Your task to perform on an android device: Open calendar and show me the fourth week of next month Image 0: 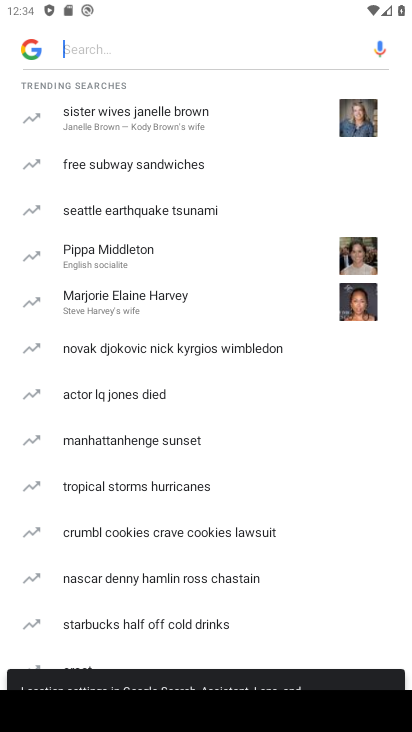
Step 0: press home button
Your task to perform on an android device: Open calendar and show me the fourth week of next month Image 1: 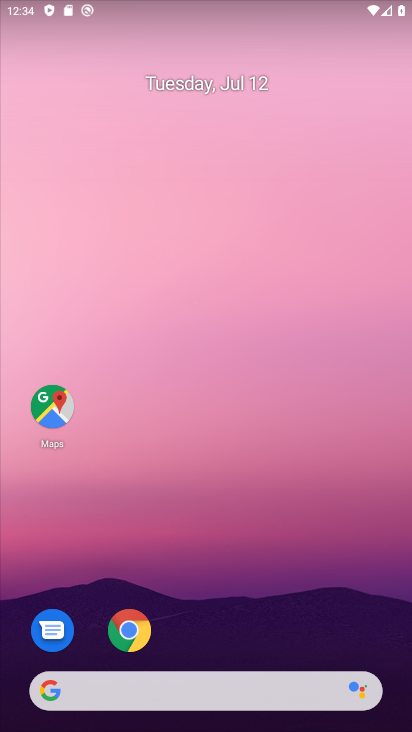
Step 1: drag from (371, 639) to (291, 220)
Your task to perform on an android device: Open calendar and show me the fourth week of next month Image 2: 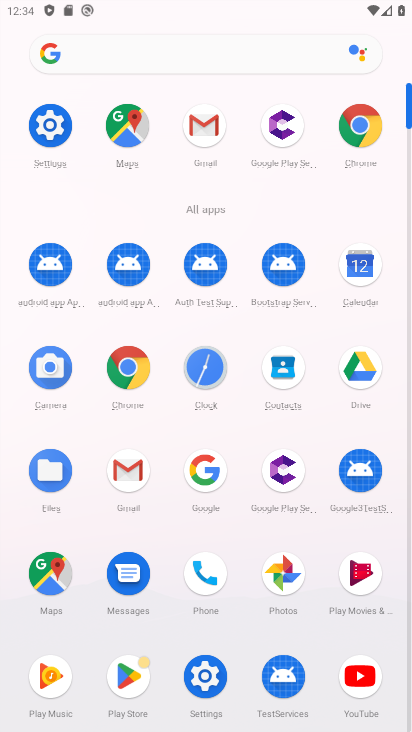
Step 2: click (359, 266)
Your task to perform on an android device: Open calendar and show me the fourth week of next month Image 3: 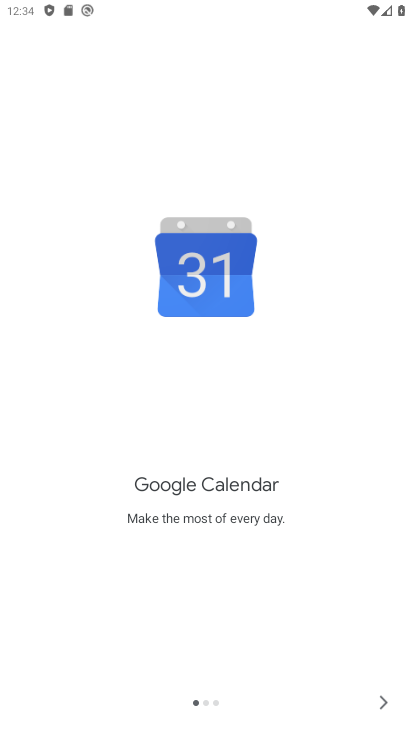
Step 3: click (385, 707)
Your task to perform on an android device: Open calendar and show me the fourth week of next month Image 4: 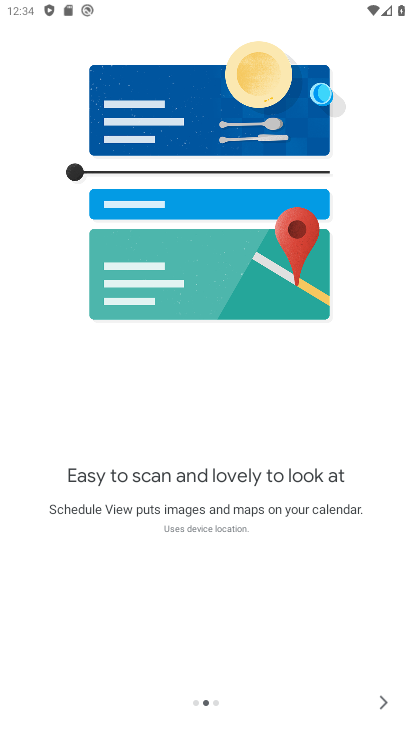
Step 4: click (380, 696)
Your task to perform on an android device: Open calendar and show me the fourth week of next month Image 5: 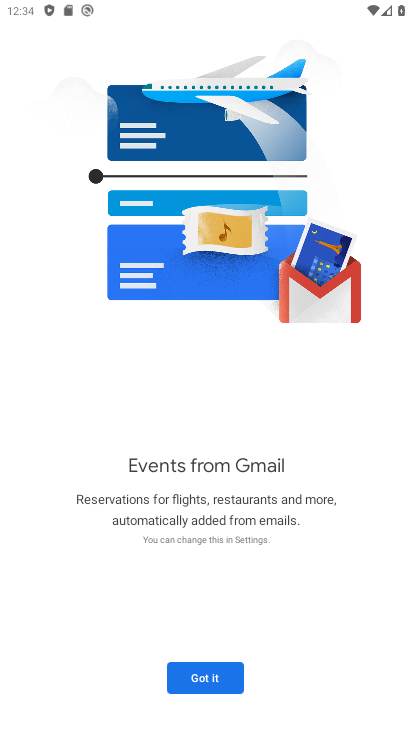
Step 5: click (206, 677)
Your task to perform on an android device: Open calendar and show me the fourth week of next month Image 6: 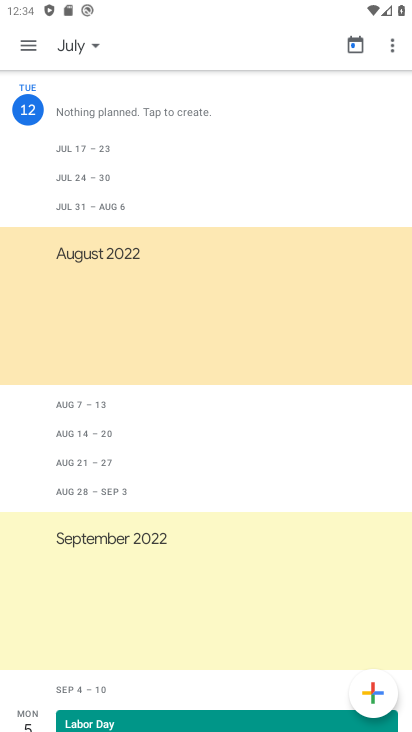
Step 6: click (32, 34)
Your task to perform on an android device: Open calendar and show me the fourth week of next month Image 7: 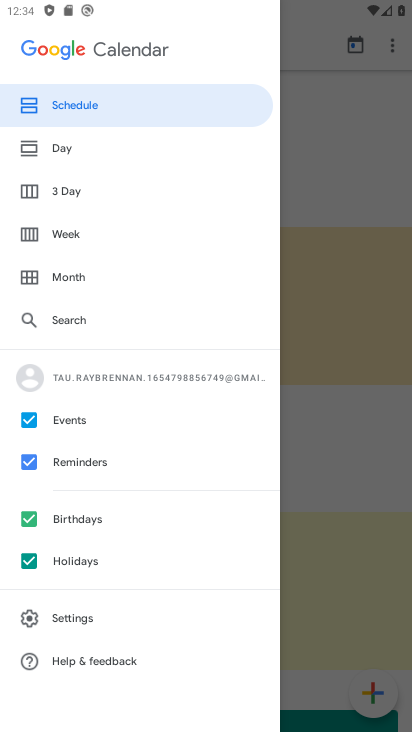
Step 7: click (64, 232)
Your task to perform on an android device: Open calendar and show me the fourth week of next month Image 8: 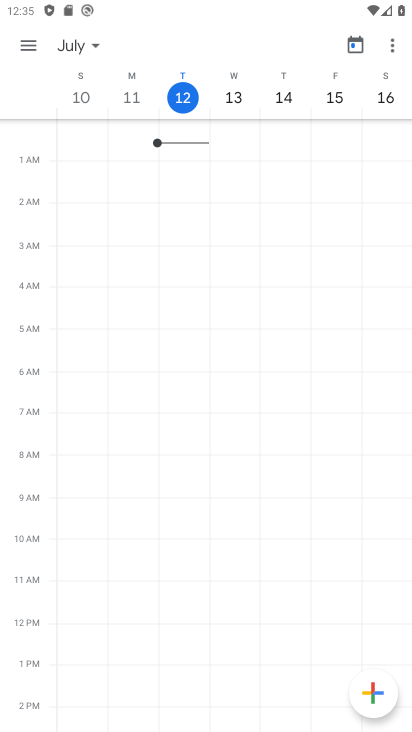
Step 8: click (87, 42)
Your task to perform on an android device: Open calendar and show me the fourth week of next month Image 9: 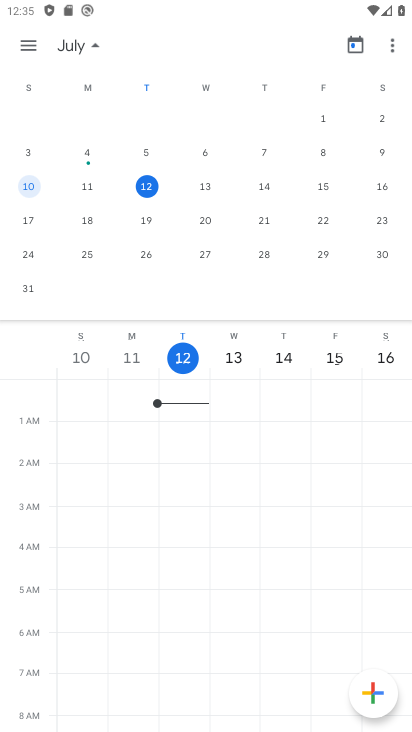
Step 9: drag from (380, 229) to (54, 208)
Your task to perform on an android device: Open calendar and show me the fourth week of next month Image 10: 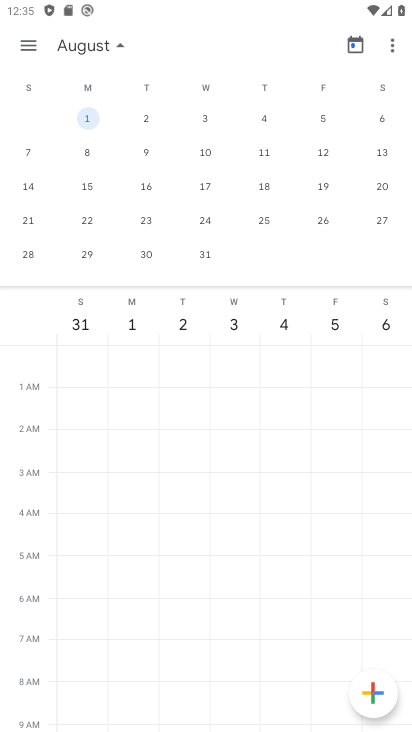
Step 10: click (27, 251)
Your task to perform on an android device: Open calendar and show me the fourth week of next month Image 11: 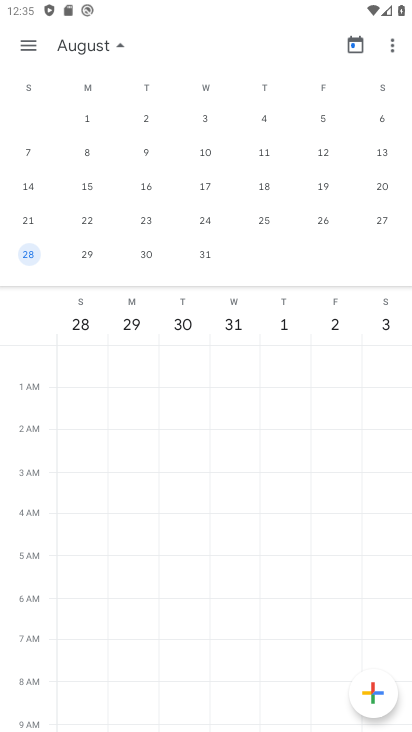
Step 11: task complete